Your task to perform on an android device: Clear the cart on costco. Add "logitech g903" to the cart on costco, then select checkout. Image 0: 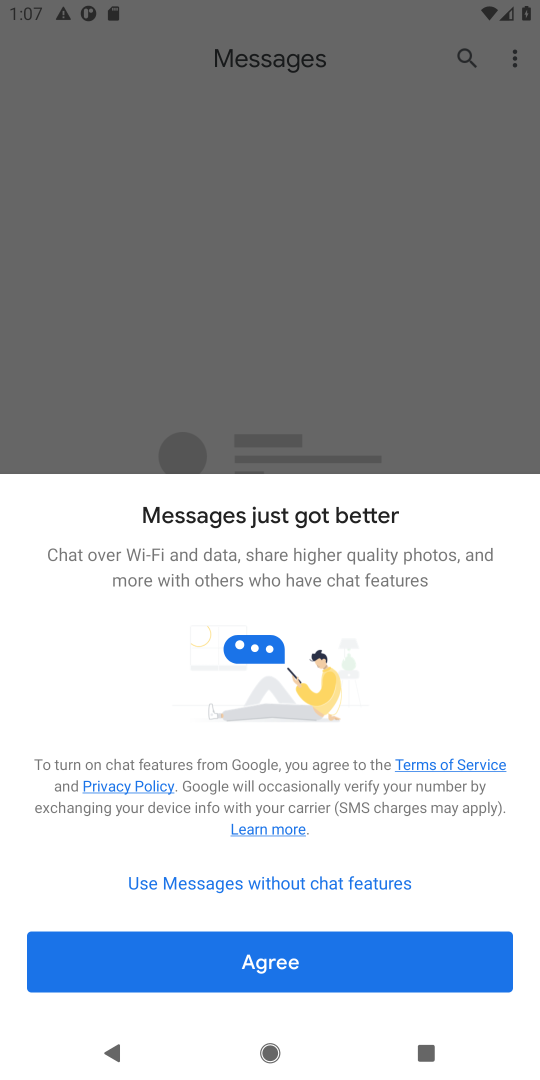
Step 0: press home button
Your task to perform on an android device: Clear the cart on costco. Add "logitech g903" to the cart on costco, then select checkout. Image 1: 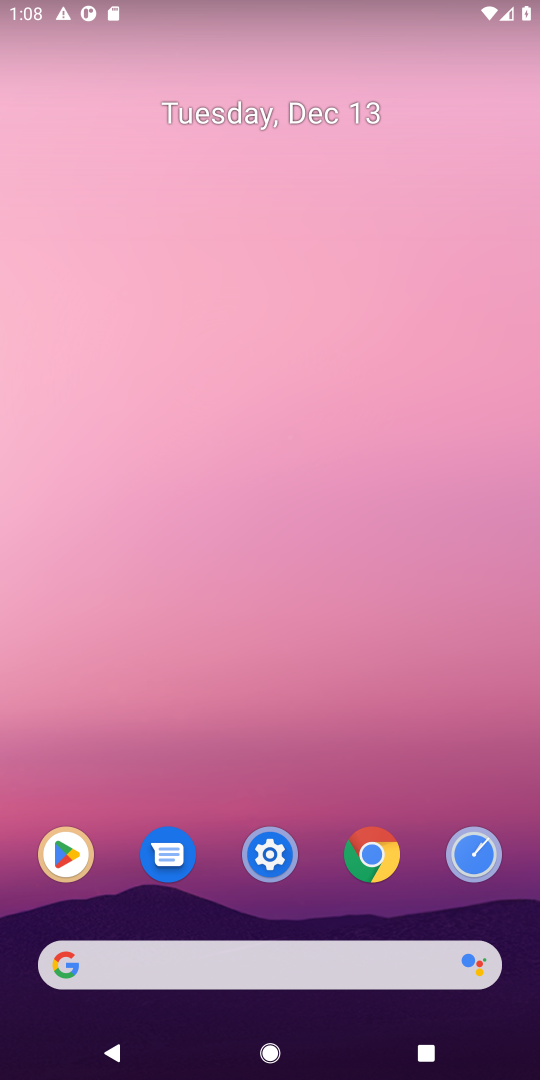
Step 1: click (340, 953)
Your task to perform on an android device: Clear the cart on costco. Add "logitech g903" to the cart on costco, then select checkout. Image 2: 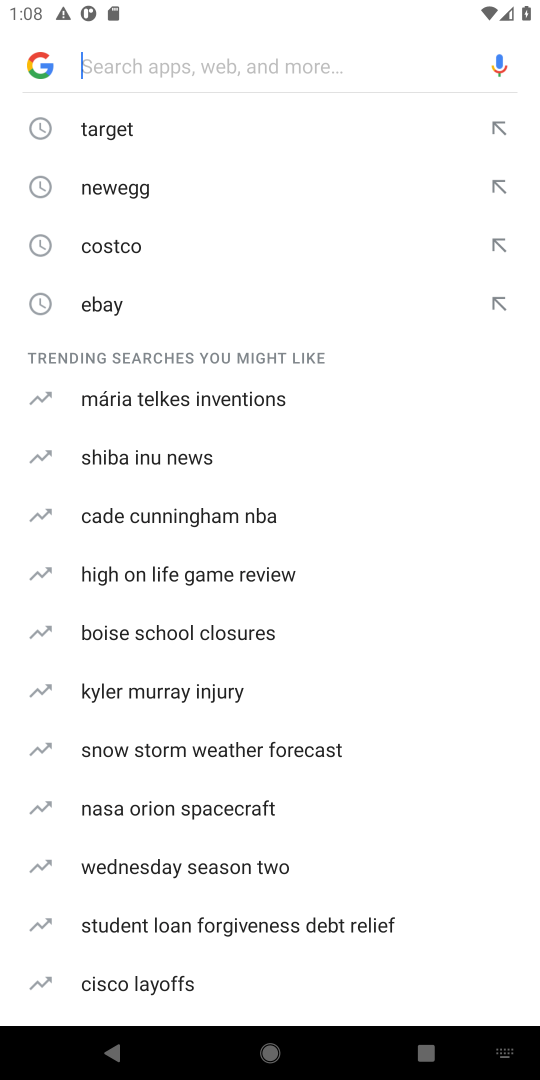
Step 2: click (154, 247)
Your task to perform on an android device: Clear the cart on costco. Add "logitech g903" to the cart on costco, then select checkout. Image 3: 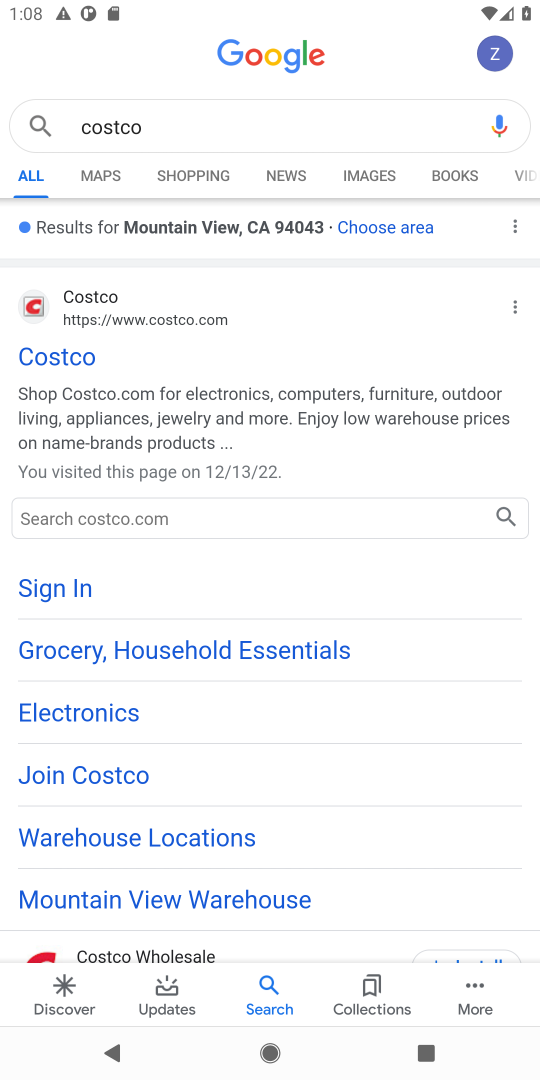
Step 3: click (60, 340)
Your task to perform on an android device: Clear the cart on costco. Add "logitech g903" to the cart on costco, then select checkout. Image 4: 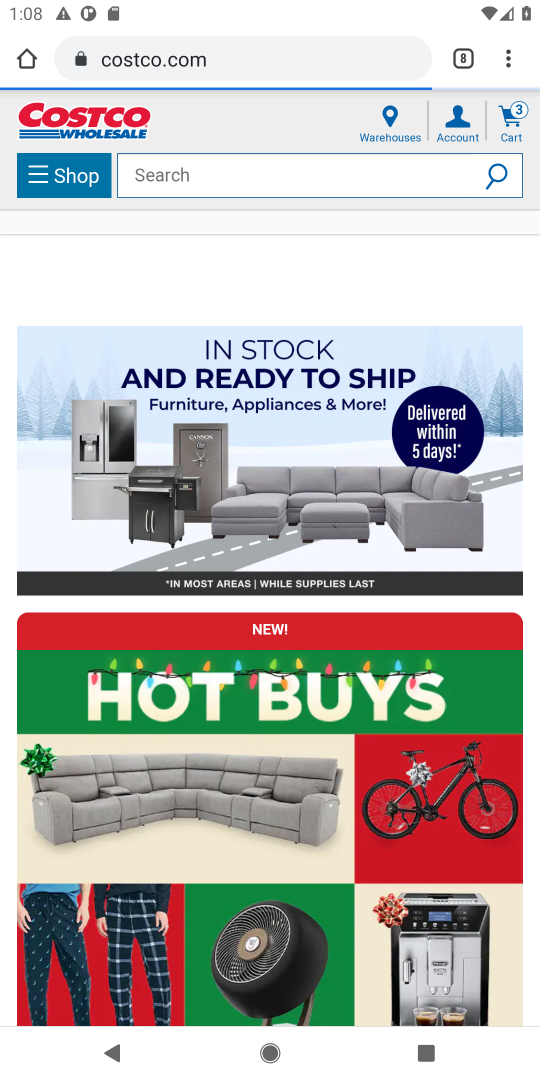
Step 4: click (254, 177)
Your task to perform on an android device: Clear the cart on costco. Add "logitech g903" to the cart on costco, then select checkout. Image 5: 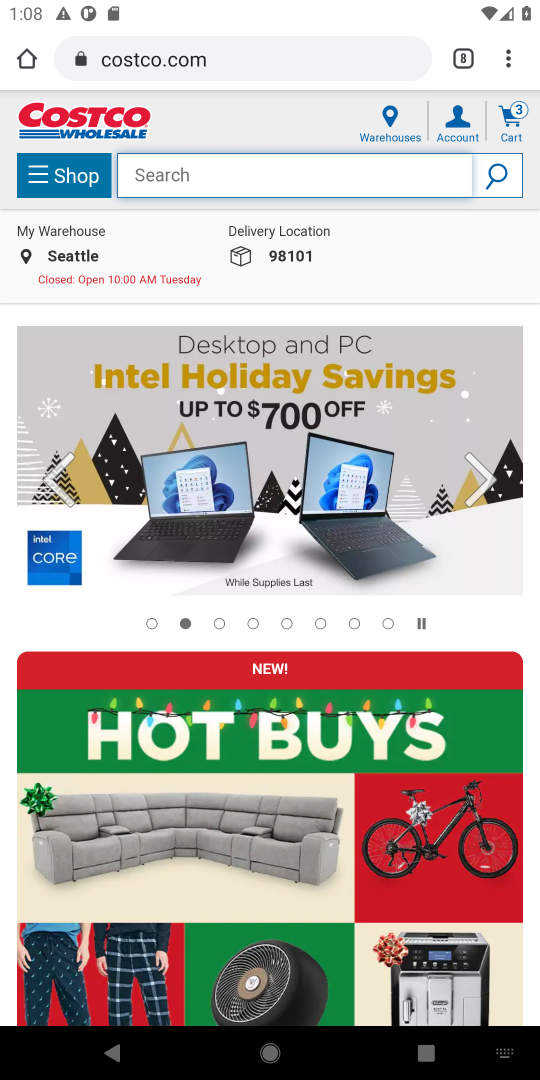
Step 5: type "logitech g903"
Your task to perform on an android device: Clear the cart on costco. Add "logitech g903" to the cart on costco, then select checkout. Image 6: 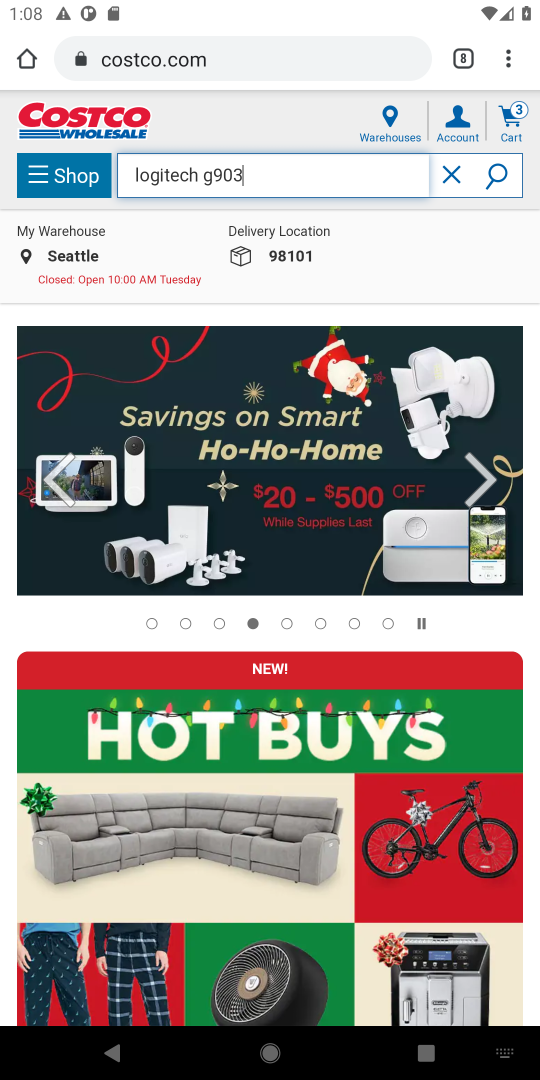
Step 6: click (506, 181)
Your task to perform on an android device: Clear the cart on costco. Add "logitech g903" to the cart on costco, then select checkout. Image 7: 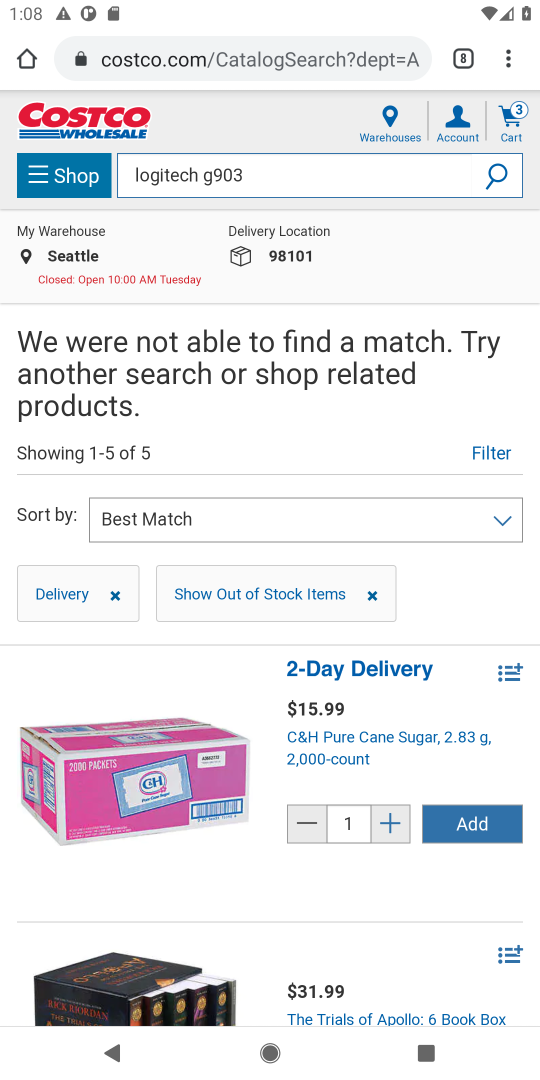
Step 7: task complete